Your task to perform on an android device: read, delete, or share a saved page in the chrome app Image 0: 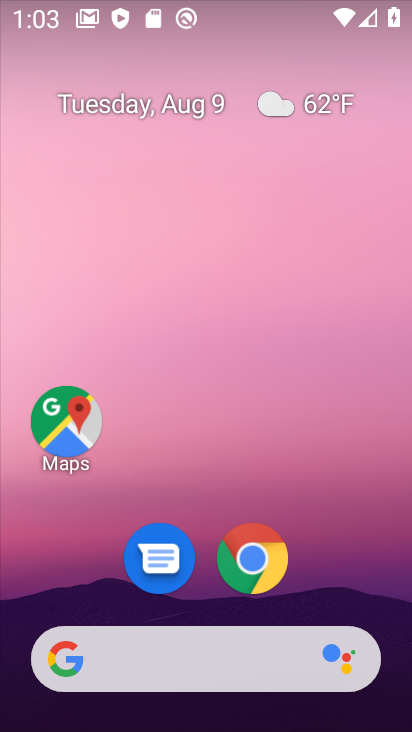
Step 0: click (242, 556)
Your task to perform on an android device: read, delete, or share a saved page in the chrome app Image 1: 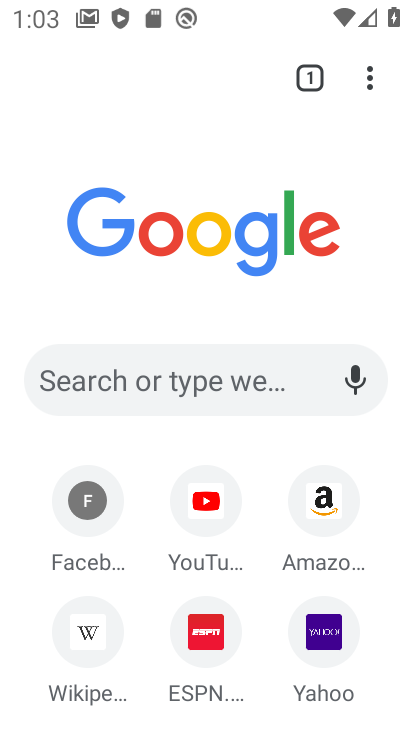
Step 1: click (368, 84)
Your task to perform on an android device: read, delete, or share a saved page in the chrome app Image 2: 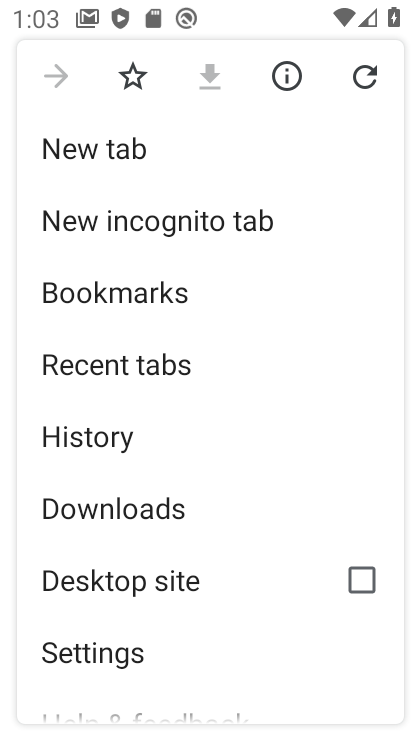
Step 2: click (201, 508)
Your task to perform on an android device: read, delete, or share a saved page in the chrome app Image 3: 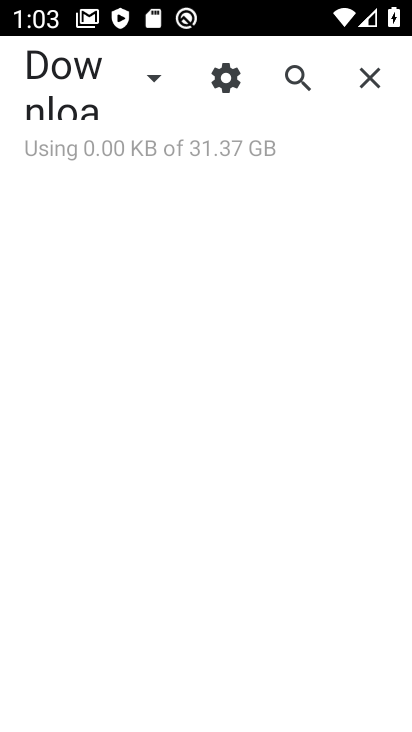
Step 3: task complete